Your task to perform on an android device: check the backup settings in the google photos Image 0: 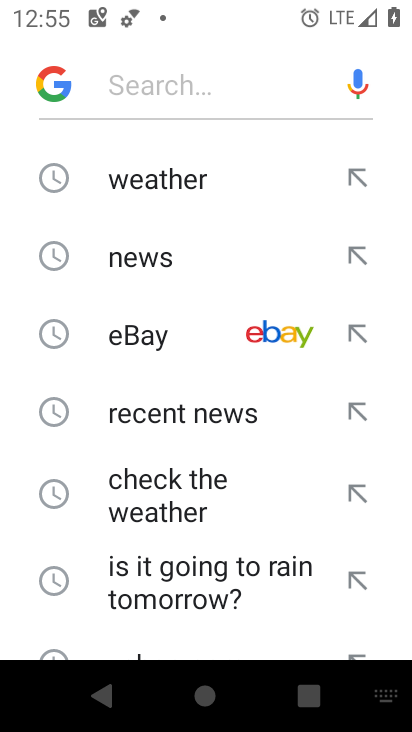
Step 0: click (361, 304)
Your task to perform on an android device: check the backup settings in the google photos Image 1: 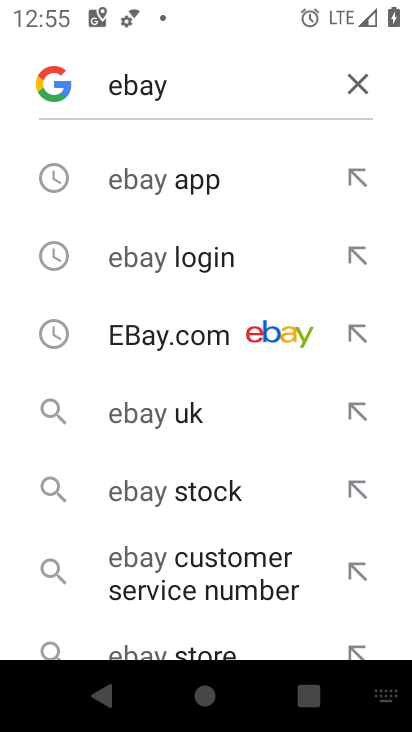
Step 1: press home button
Your task to perform on an android device: check the backup settings in the google photos Image 2: 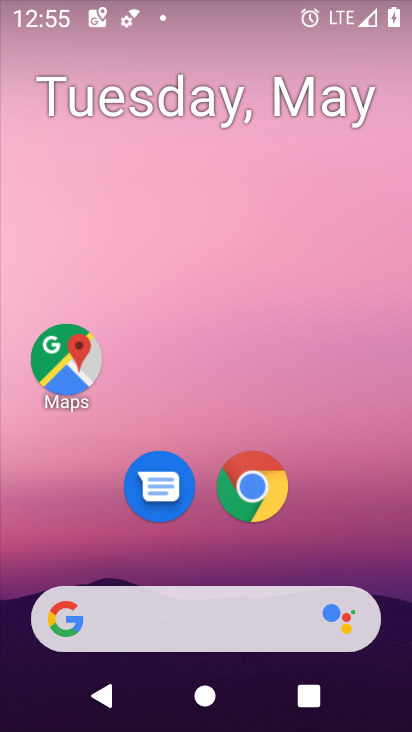
Step 2: drag from (22, 559) to (207, 145)
Your task to perform on an android device: check the backup settings in the google photos Image 3: 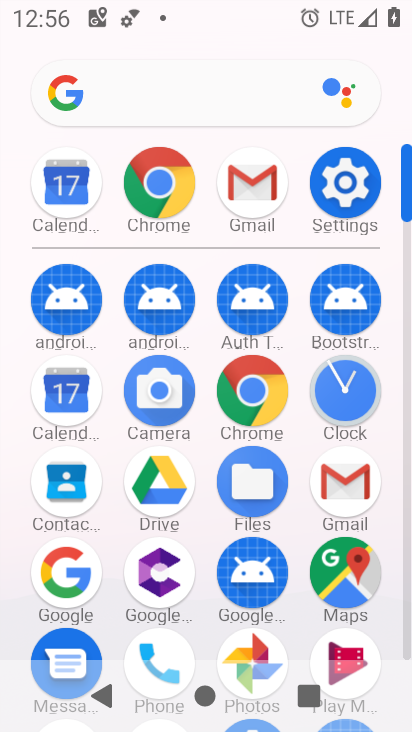
Step 3: click (247, 643)
Your task to perform on an android device: check the backup settings in the google photos Image 4: 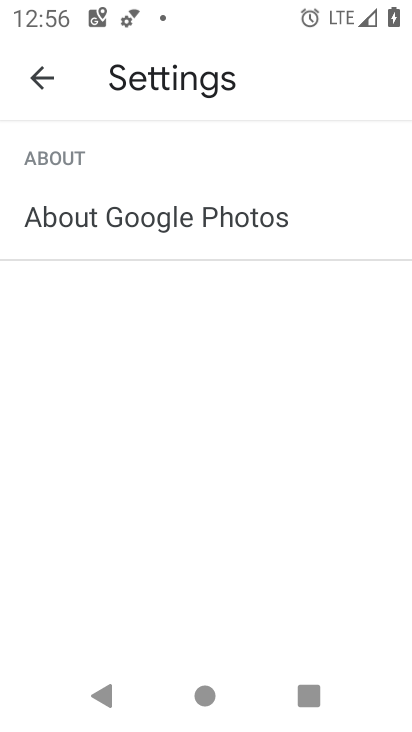
Step 4: click (35, 71)
Your task to perform on an android device: check the backup settings in the google photos Image 5: 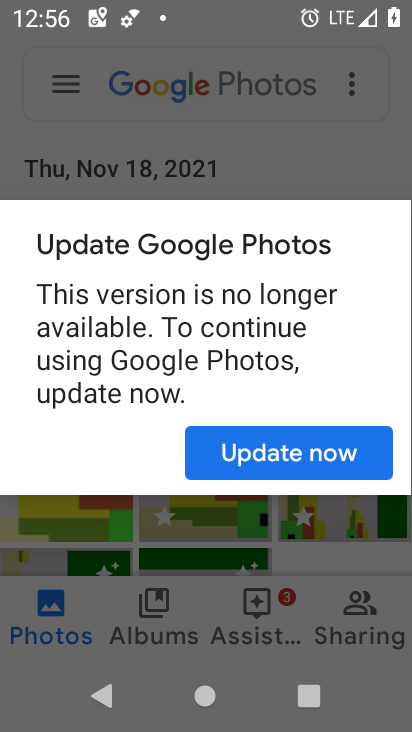
Step 5: click (267, 441)
Your task to perform on an android device: check the backup settings in the google photos Image 6: 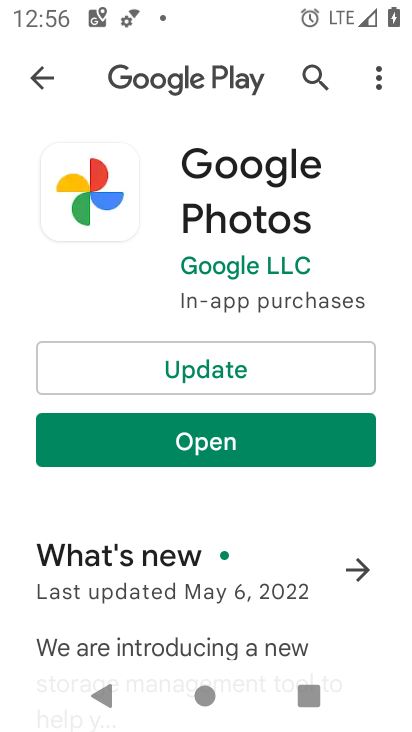
Step 6: click (237, 430)
Your task to perform on an android device: check the backup settings in the google photos Image 7: 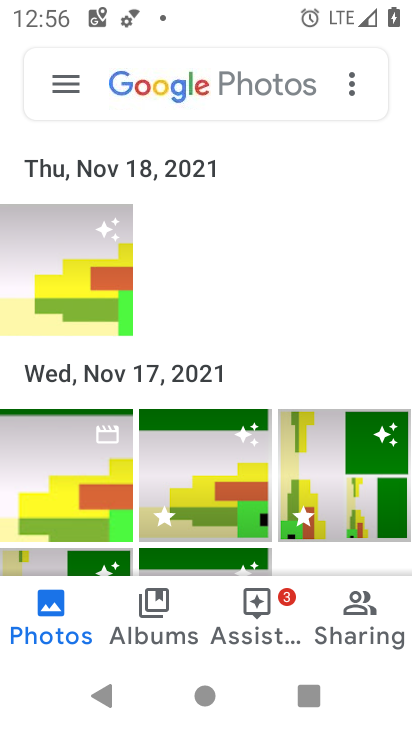
Step 7: click (70, 92)
Your task to perform on an android device: check the backup settings in the google photos Image 8: 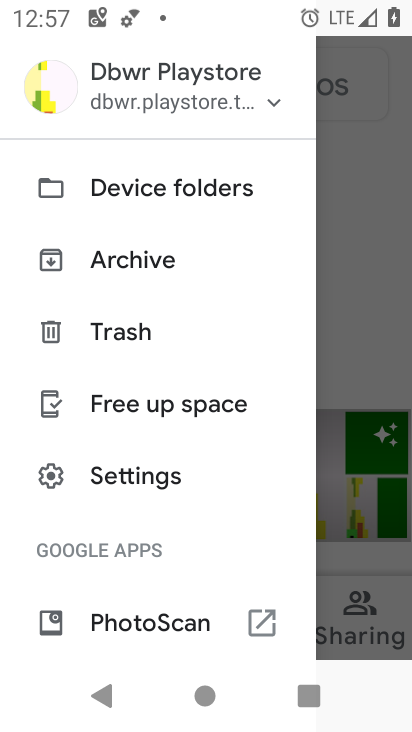
Step 8: click (112, 489)
Your task to perform on an android device: check the backup settings in the google photos Image 9: 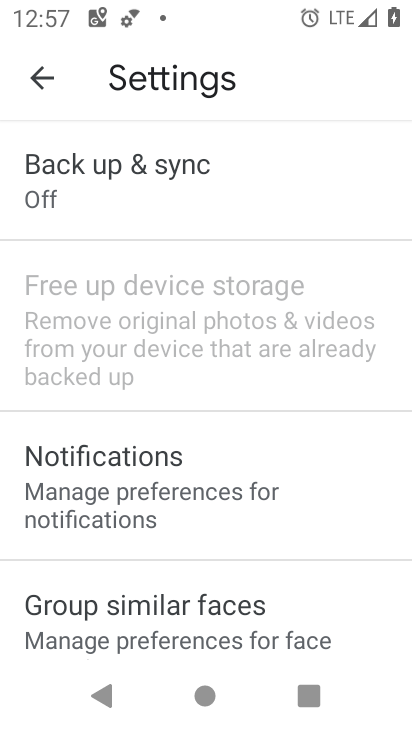
Step 9: click (196, 160)
Your task to perform on an android device: check the backup settings in the google photos Image 10: 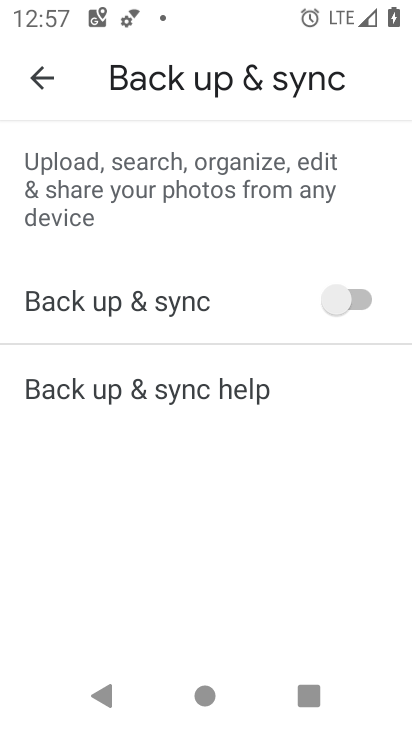
Step 10: click (330, 302)
Your task to perform on an android device: check the backup settings in the google photos Image 11: 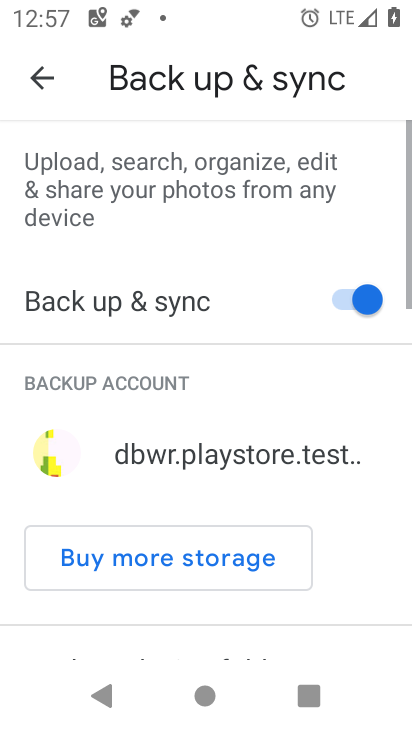
Step 11: task complete